Your task to perform on an android device: Open battery settings Image 0: 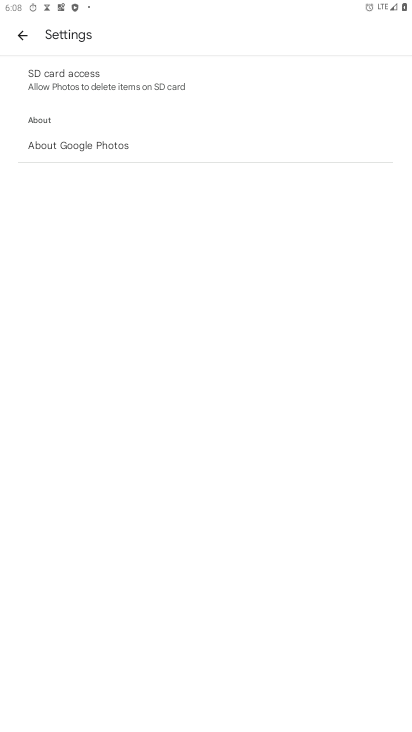
Step 0: press home button
Your task to perform on an android device: Open battery settings Image 1: 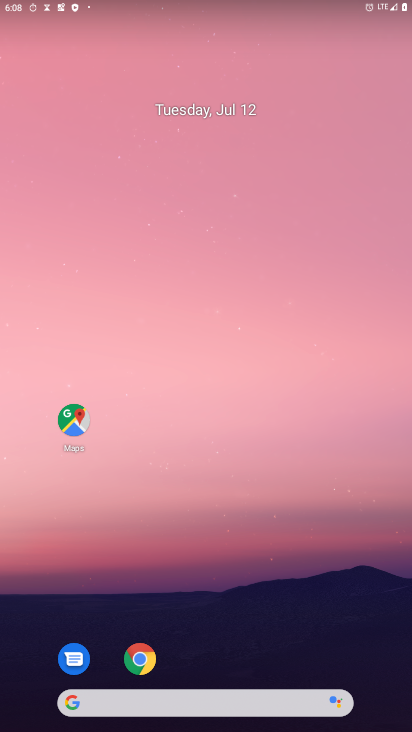
Step 1: drag from (200, 651) to (200, 137)
Your task to perform on an android device: Open battery settings Image 2: 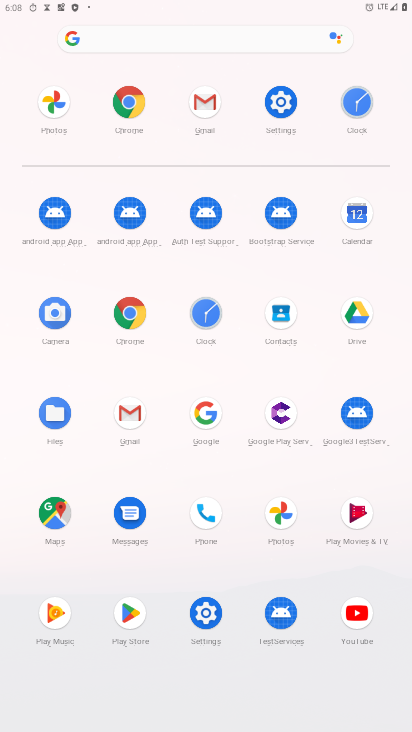
Step 2: click (282, 103)
Your task to perform on an android device: Open battery settings Image 3: 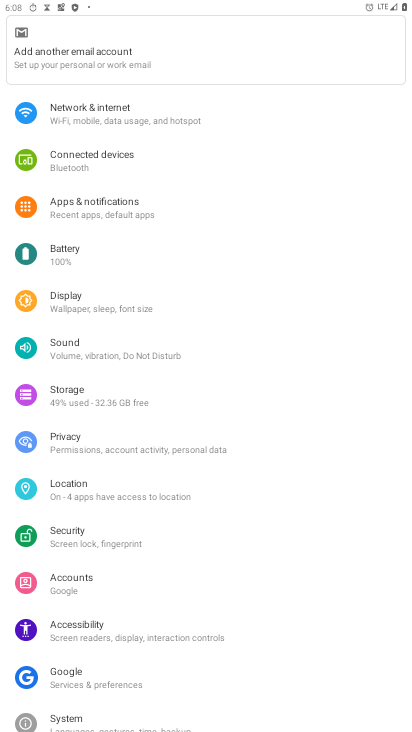
Step 3: click (89, 250)
Your task to perform on an android device: Open battery settings Image 4: 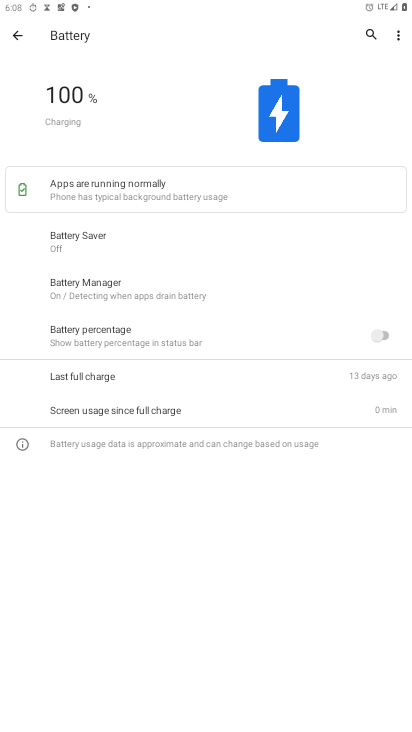
Step 4: task complete